Your task to perform on an android device: toggle priority inbox in the gmail app Image 0: 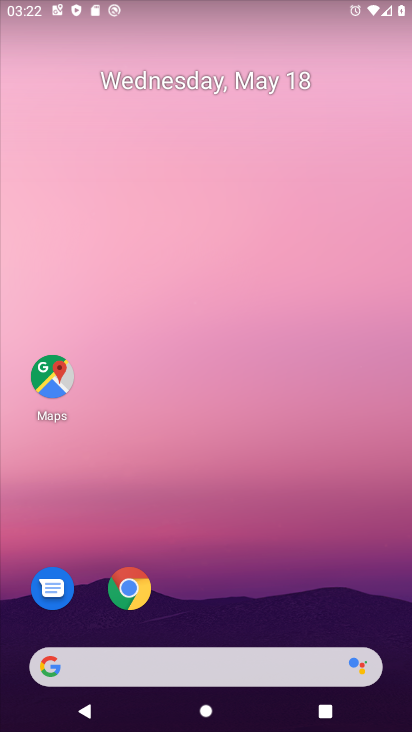
Step 0: drag from (37, 479) to (222, 84)
Your task to perform on an android device: toggle priority inbox in the gmail app Image 1: 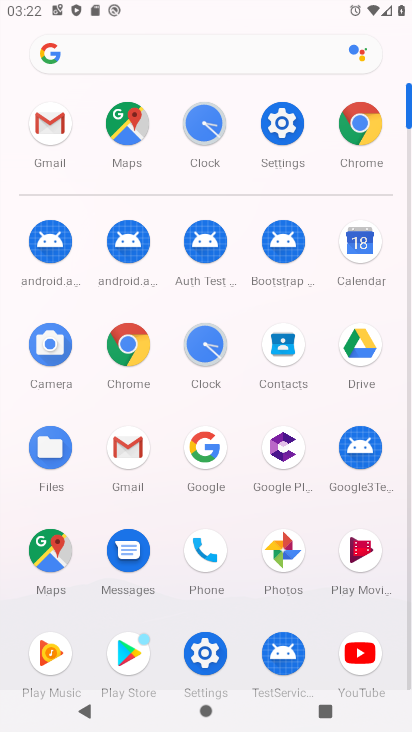
Step 1: click (64, 131)
Your task to perform on an android device: toggle priority inbox in the gmail app Image 2: 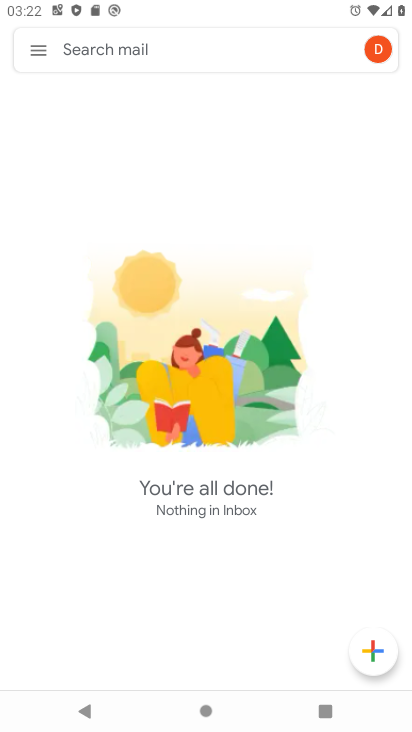
Step 2: click (28, 45)
Your task to perform on an android device: toggle priority inbox in the gmail app Image 3: 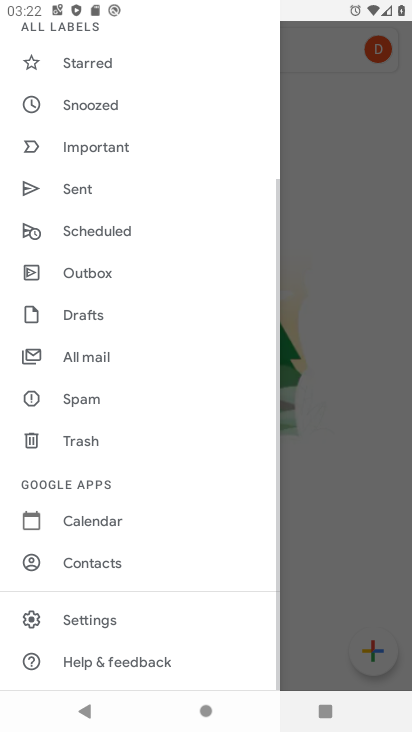
Step 3: click (70, 627)
Your task to perform on an android device: toggle priority inbox in the gmail app Image 4: 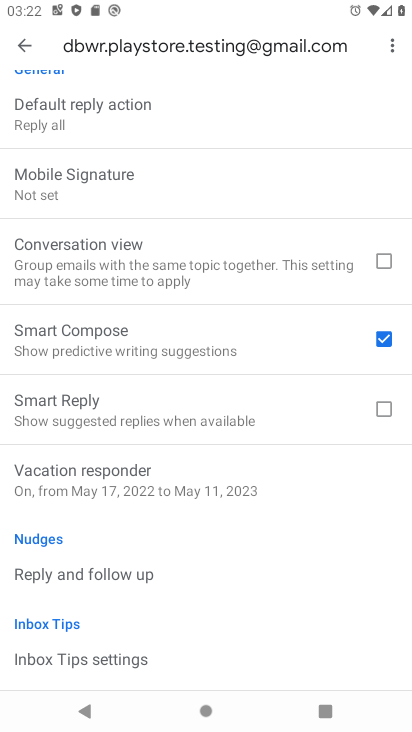
Step 4: drag from (75, 654) to (238, 42)
Your task to perform on an android device: toggle priority inbox in the gmail app Image 5: 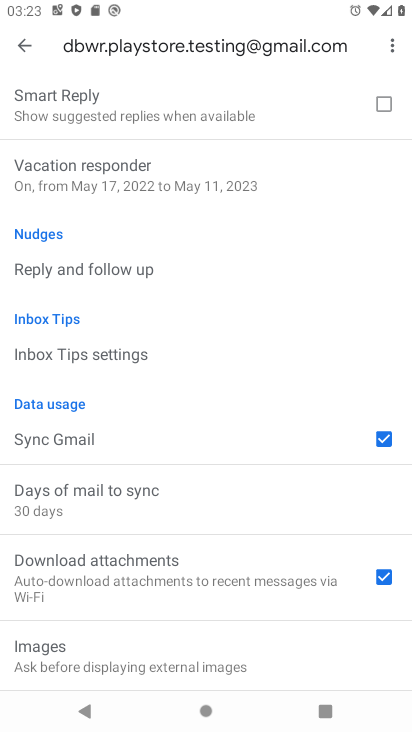
Step 5: drag from (62, 111) to (126, 731)
Your task to perform on an android device: toggle priority inbox in the gmail app Image 6: 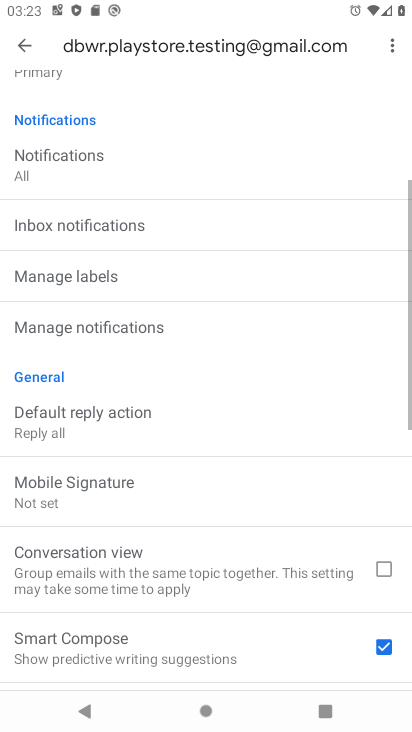
Step 6: drag from (96, 82) to (102, 687)
Your task to perform on an android device: toggle priority inbox in the gmail app Image 7: 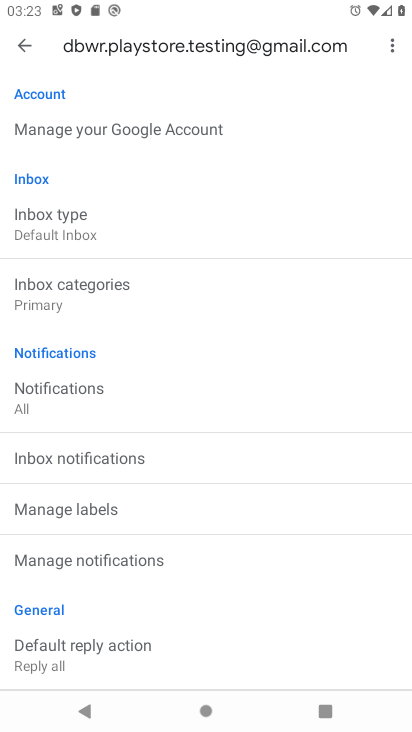
Step 7: drag from (64, 101) to (75, 610)
Your task to perform on an android device: toggle priority inbox in the gmail app Image 8: 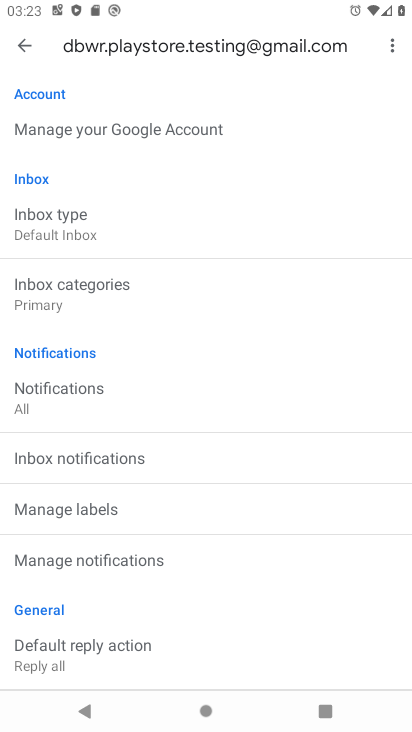
Step 8: click (59, 226)
Your task to perform on an android device: toggle priority inbox in the gmail app Image 9: 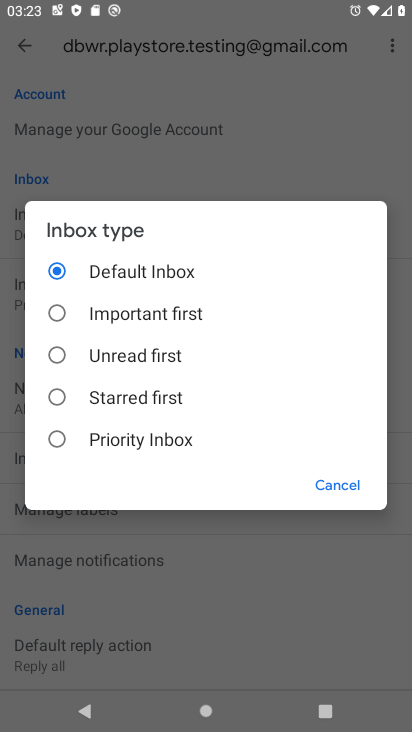
Step 9: click (67, 439)
Your task to perform on an android device: toggle priority inbox in the gmail app Image 10: 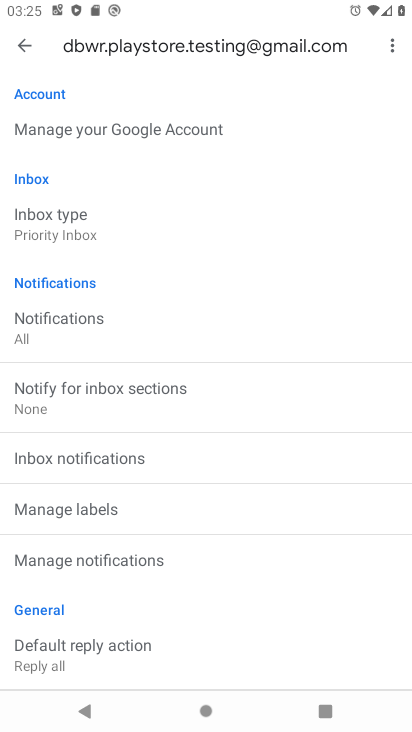
Step 10: task complete